Your task to perform on an android device: Search for vegetarian restaurants on Maps Image 0: 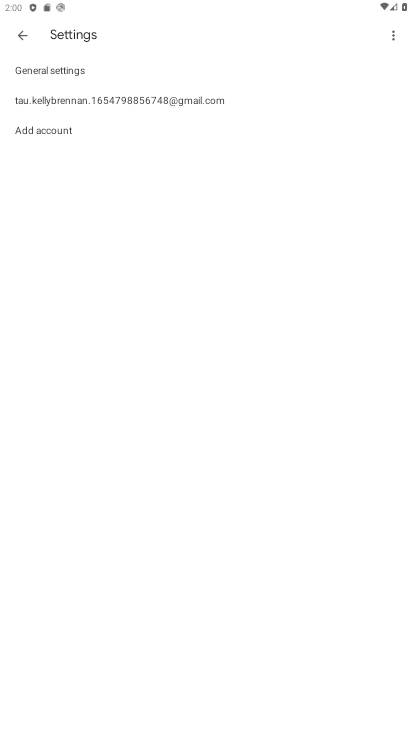
Step 0: press home button
Your task to perform on an android device: Search for vegetarian restaurants on Maps Image 1: 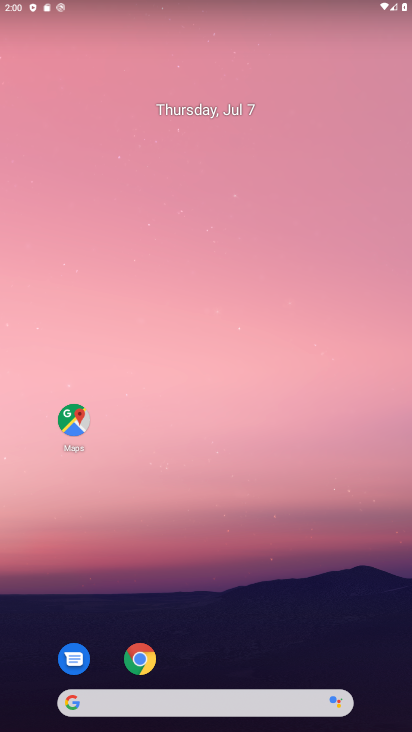
Step 1: drag from (256, 553) to (212, 172)
Your task to perform on an android device: Search for vegetarian restaurants on Maps Image 2: 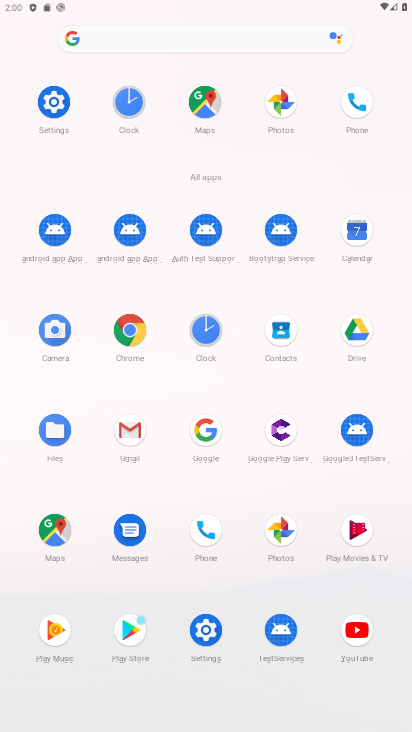
Step 2: click (119, 430)
Your task to perform on an android device: Search for vegetarian restaurants on Maps Image 3: 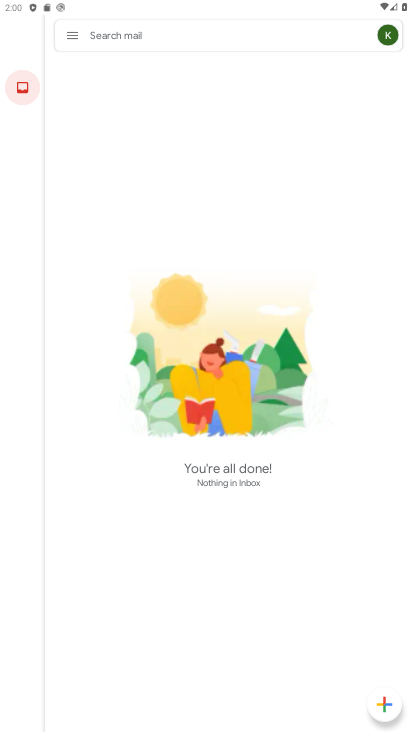
Step 3: press home button
Your task to perform on an android device: Search for vegetarian restaurants on Maps Image 4: 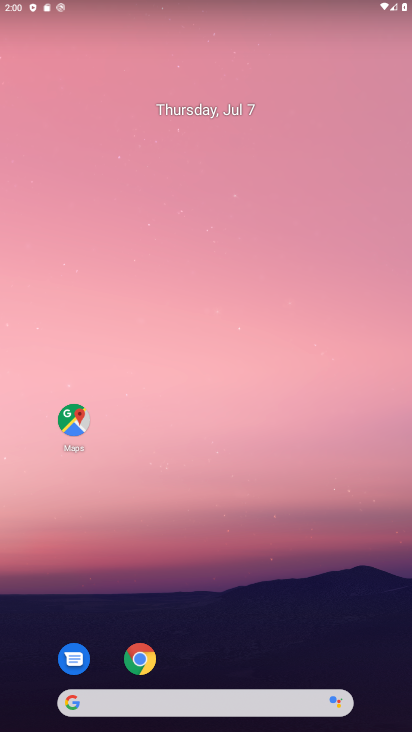
Step 4: click (84, 412)
Your task to perform on an android device: Search for vegetarian restaurants on Maps Image 5: 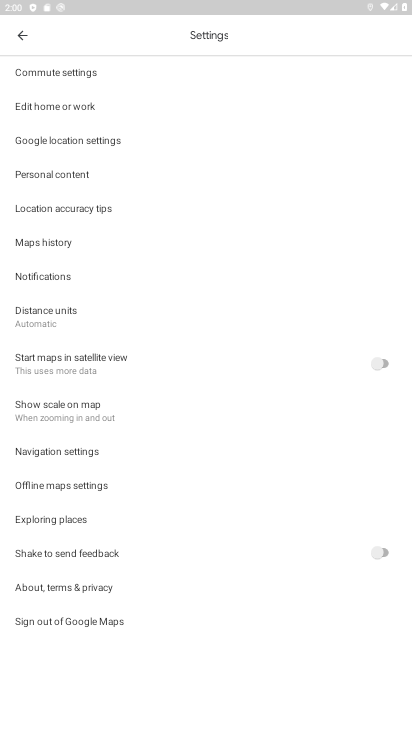
Step 5: click (17, 27)
Your task to perform on an android device: Search for vegetarian restaurants on Maps Image 6: 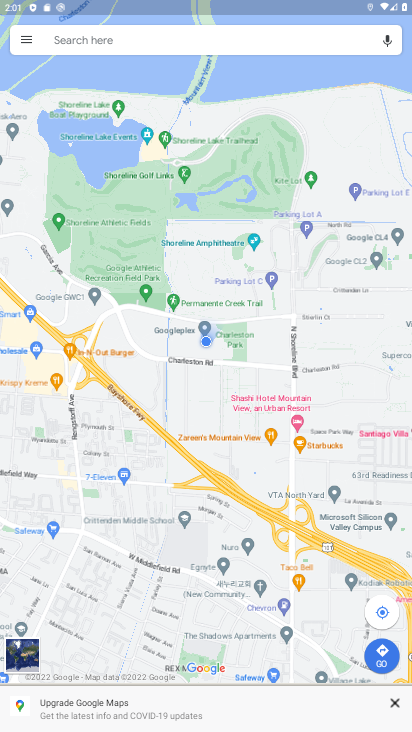
Step 6: click (155, 40)
Your task to perform on an android device: Search for vegetarian restaurants on Maps Image 7: 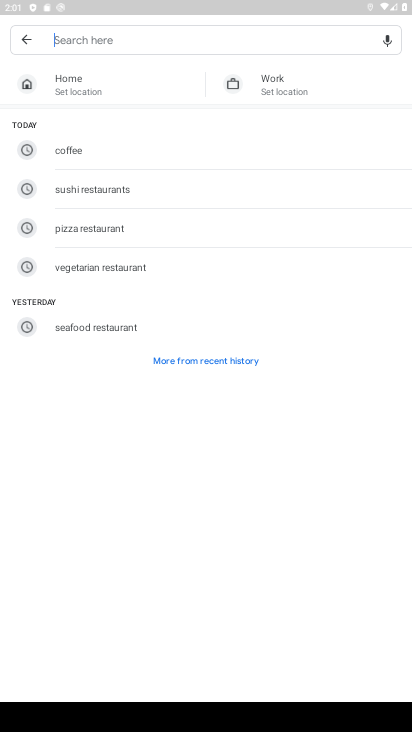
Step 7: type "vegetarian restaurant"
Your task to perform on an android device: Search for vegetarian restaurants on Maps Image 8: 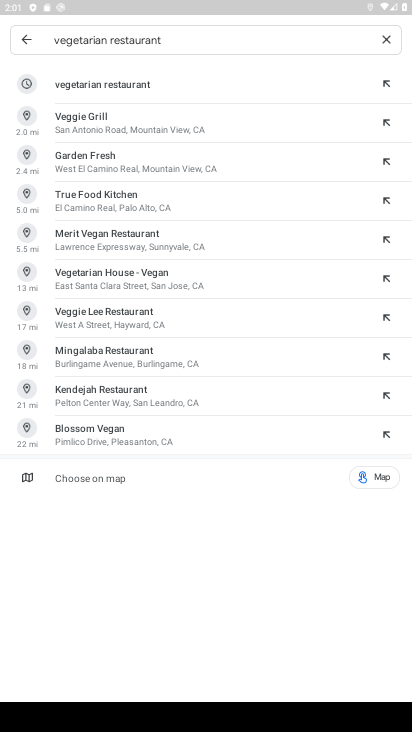
Step 8: click (149, 85)
Your task to perform on an android device: Search for vegetarian restaurants on Maps Image 9: 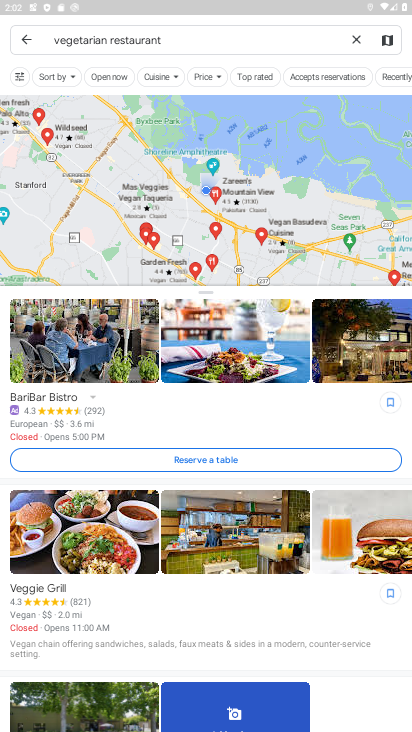
Step 9: task complete